Your task to perform on an android device: open sync settings in chrome Image 0: 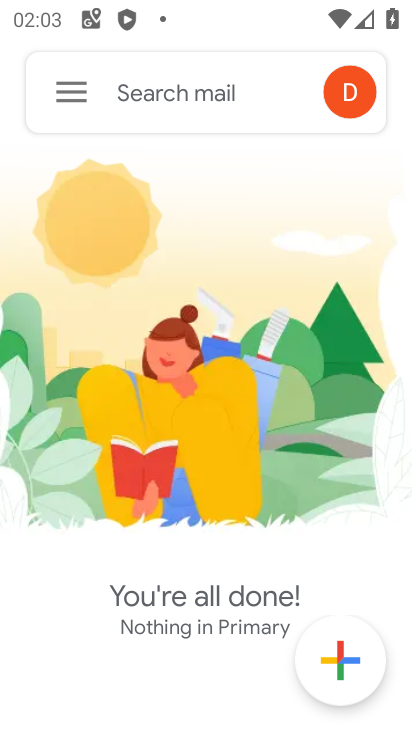
Step 0: press home button
Your task to perform on an android device: open sync settings in chrome Image 1: 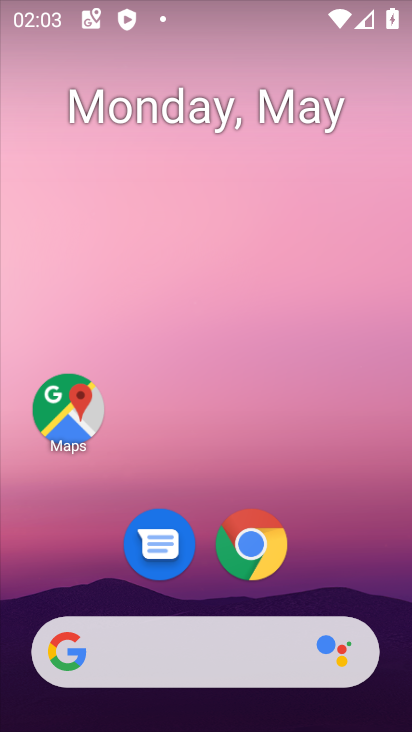
Step 1: drag from (348, 582) to (360, 219)
Your task to perform on an android device: open sync settings in chrome Image 2: 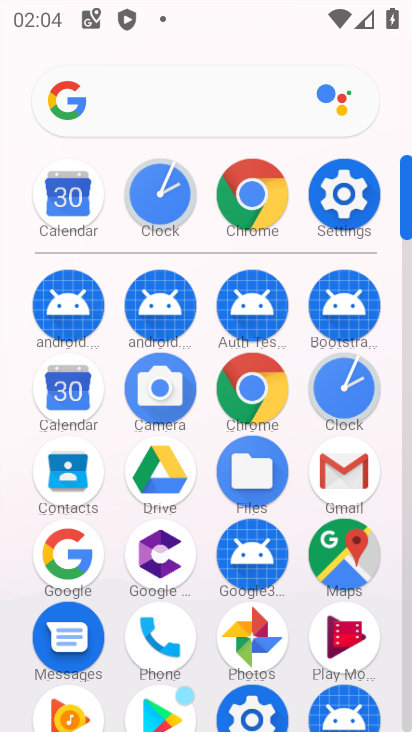
Step 2: click (262, 410)
Your task to perform on an android device: open sync settings in chrome Image 3: 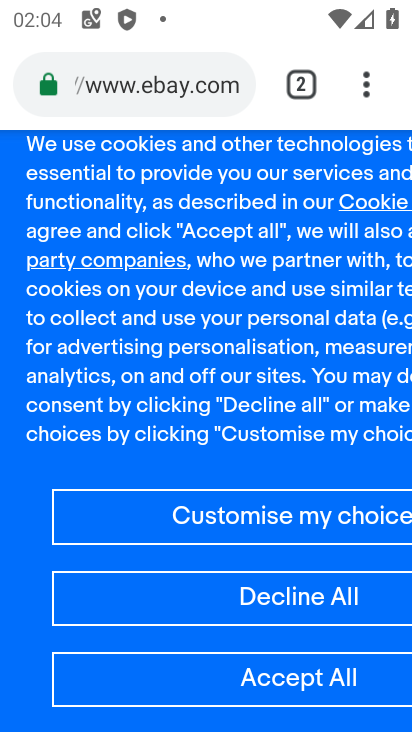
Step 3: click (365, 99)
Your task to perform on an android device: open sync settings in chrome Image 4: 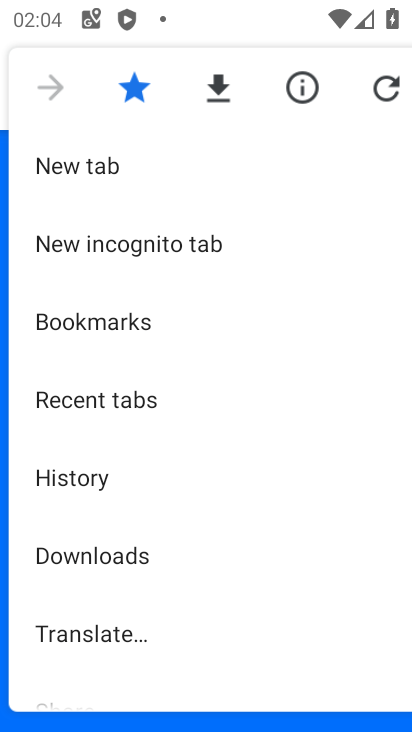
Step 4: drag from (321, 533) to (340, 417)
Your task to perform on an android device: open sync settings in chrome Image 5: 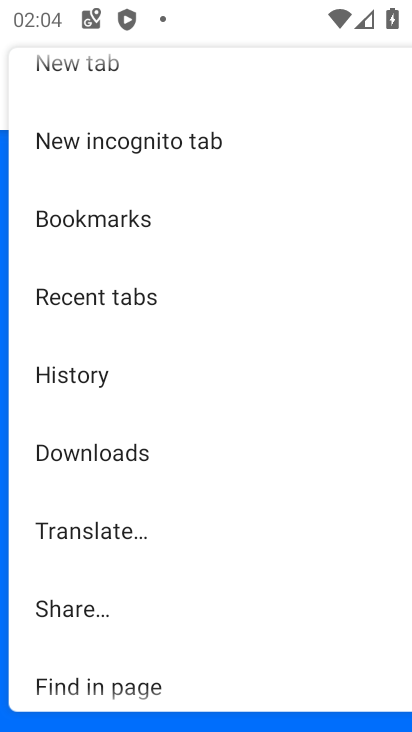
Step 5: drag from (340, 574) to (339, 371)
Your task to perform on an android device: open sync settings in chrome Image 6: 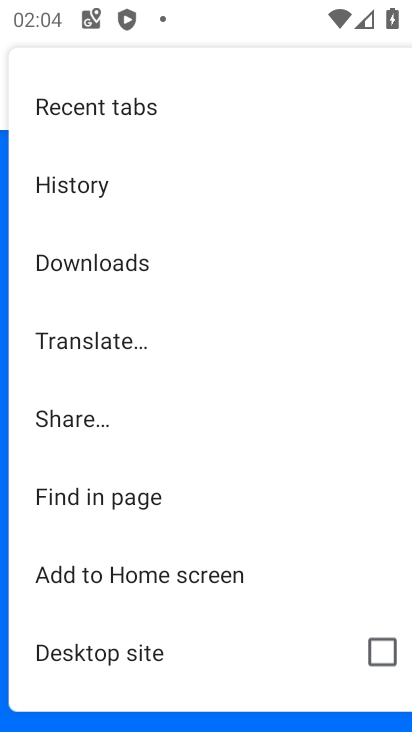
Step 6: drag from (307, 565) to (311, 417)
Your task to perform on an android device: open sync settings in chrome Image 7: 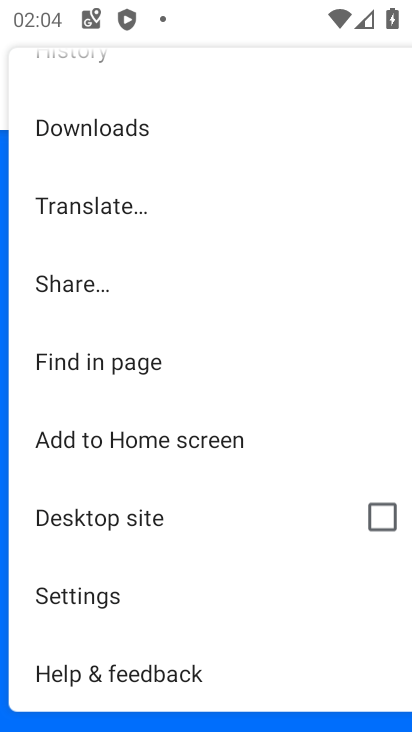
Step 7: click (178, 598)
Your task to perform on an android device: open sync settings in chrome Image 8: 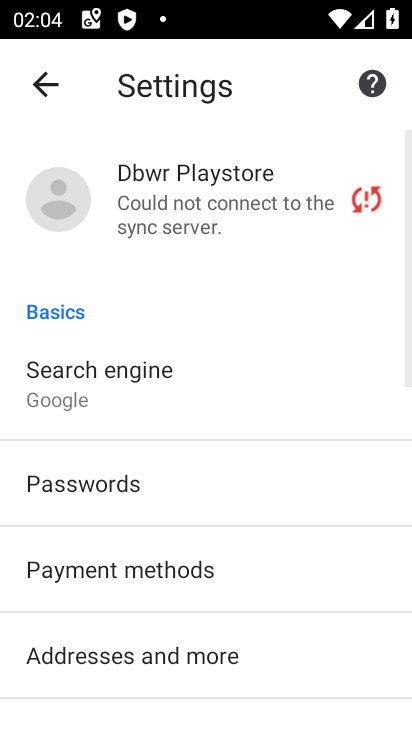
Step 8: drag from (271, 586) to (275, 505)
Your task to perform on an android device: open sync settings in chrome Image 9: 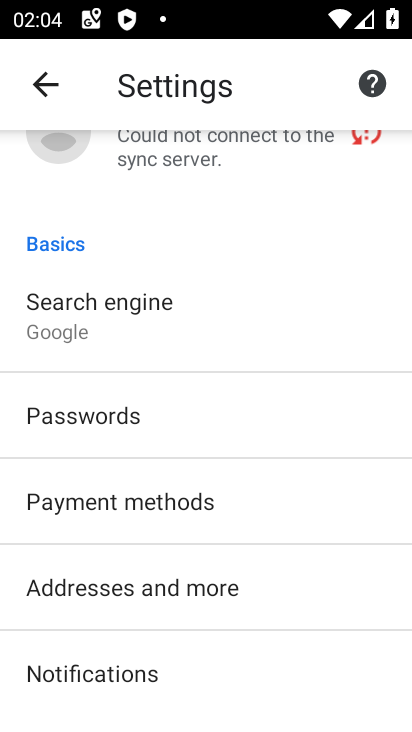
Step 9: drag from (297, 608) to (300, 466)
Your task to perform on an android device: open sync settings in chrome Image 10: 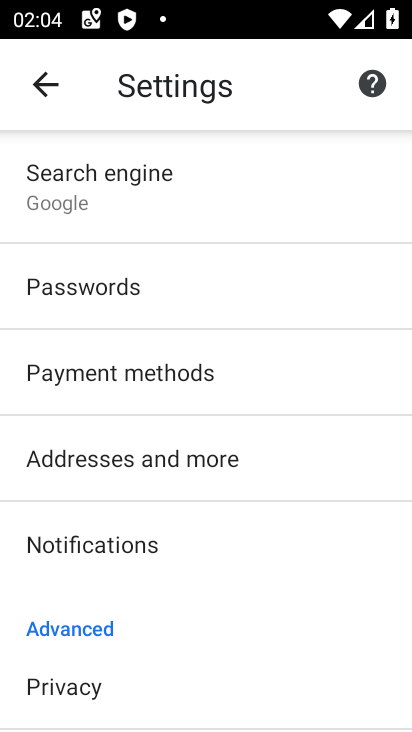
Step 10: drag from (302, 586) to (296, 445)
Your task to perform on an android device: open sync settings in chrome Image 11: 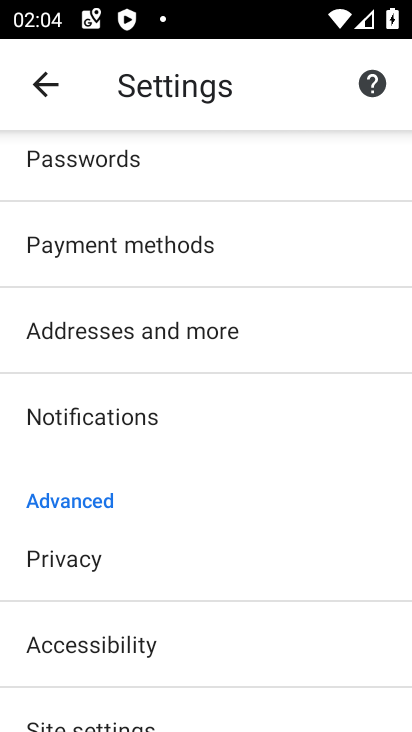
Step 11: drag from (302, 615) to (304, 514)
Your task to perform on an android device: open sync settings in chrome Image 12: 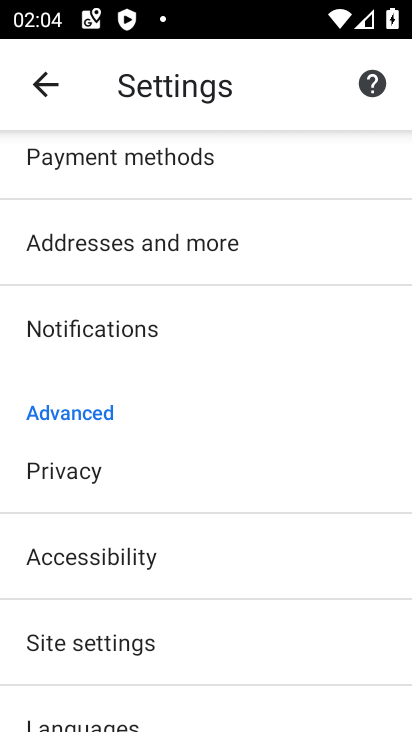
Step 12: drag from (318, 577) to (314, 487)
Your task to perform on an android device: open sync settings in chrome Image 13: 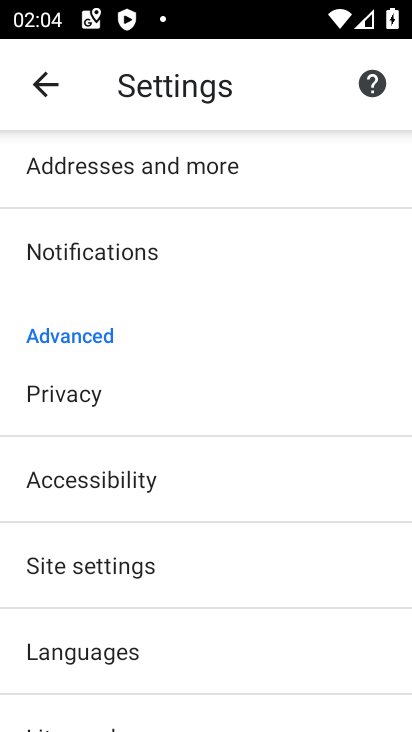
Step 13: drag from (323, 586) to (319, 455)
Your task to perform on an android device: open sync settings in chrome Image 14: 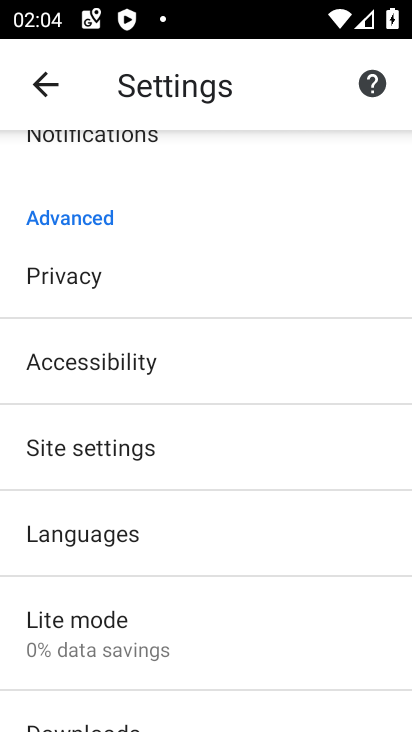
Step 14: drag from (340, 596) to (334, 385)
Your task to perform on an android device: open sync settings in chrome Image 15: 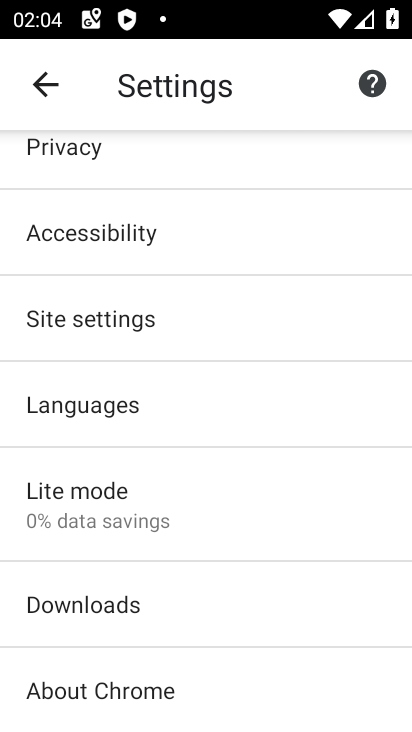
Step 15: click (315, 335)
Your task to perform on an android device: open sync settings in chrome Image 16: 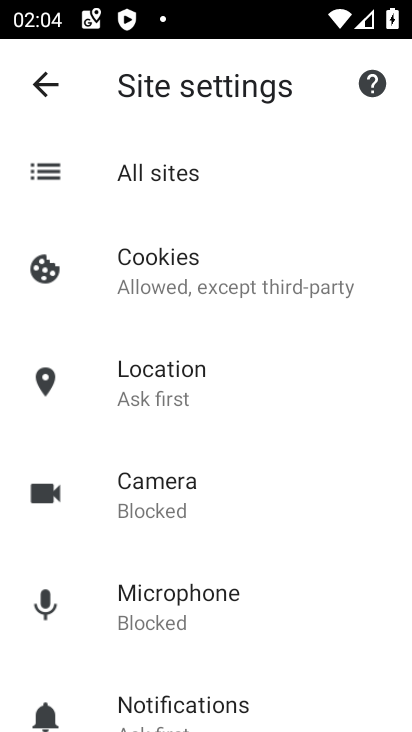
Step 16: drag from (316, 530) to (317, 440)
Your task to perform on an android device: open sync settings in chrome Image 17: 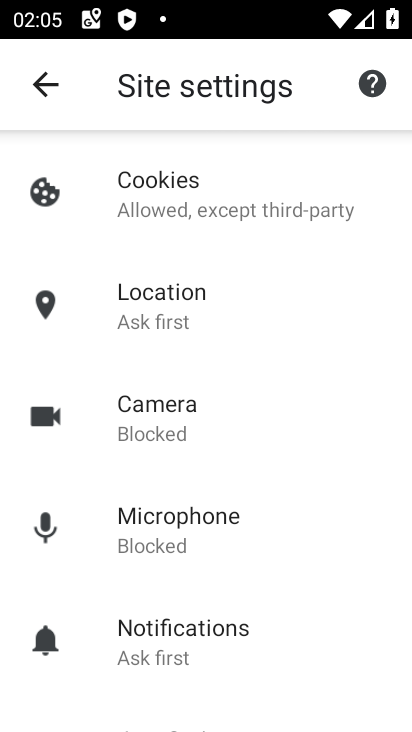
Step 17: drag from (308, 556) to (304, 418)
Your task to perform on an android device: open sync settings in chrome Image 18: 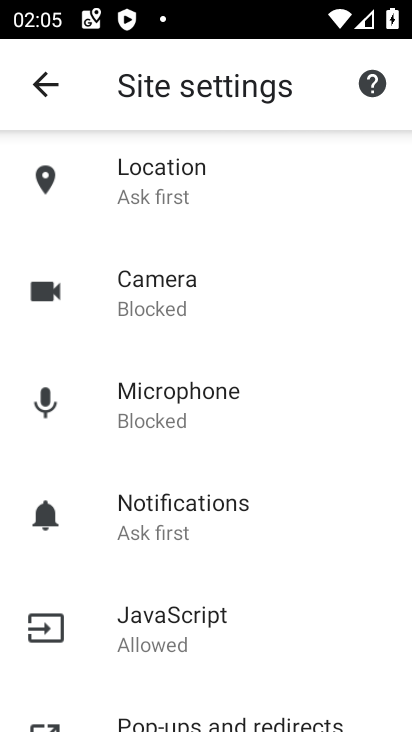
Step 18: drag from (292, 590) to (296, 460)
Your task to perform on an android device: open sync settings in chrome Image 19: 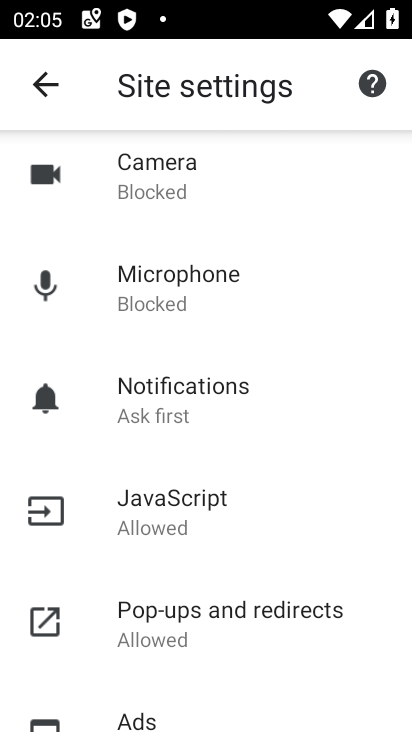
Step 19: drag from (277, 652) to (280, 474)
Your task to perform on an android device: open sync settings in chrome Image 20: 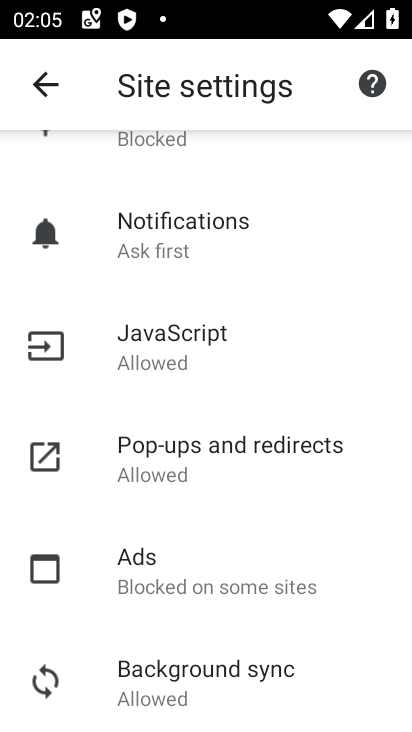
Step 20: click (257, 666)
Your task to perform on an android device: open sync settings in chrome Image 21: 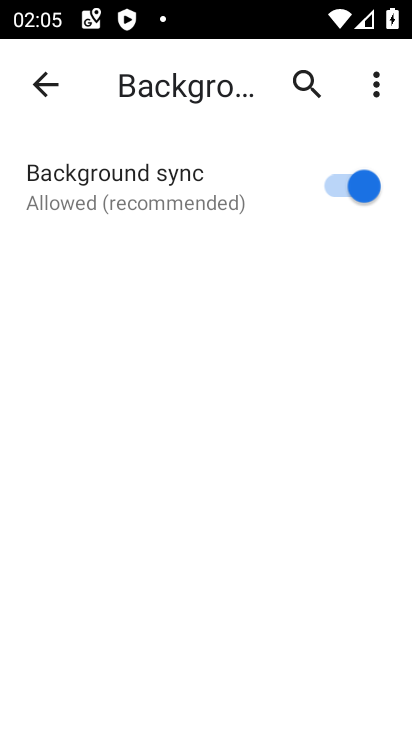
Step 21: task complete